Your task to perform on an android device: open sync settings in chrome Image 0: 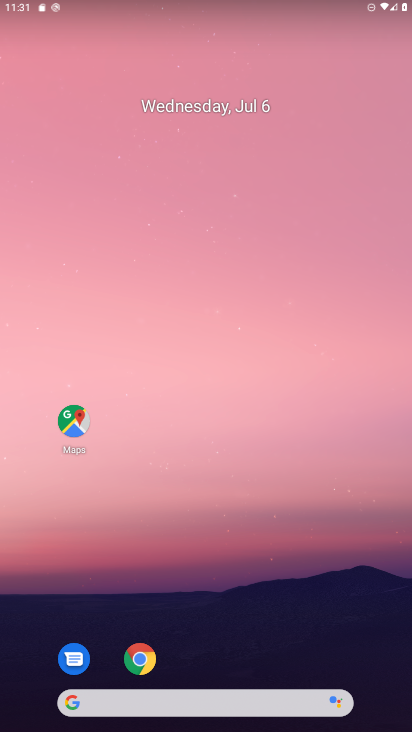
Step 0: drag from (157, 630) to (258, 99)
Your task to perform on an android device: open sync settings in chrome Image 1: 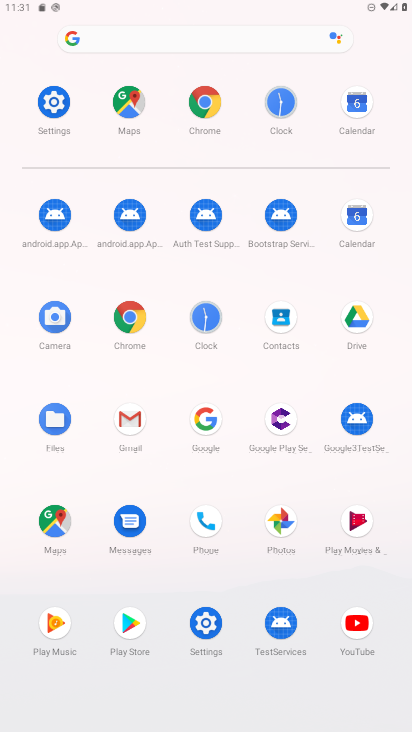
Step 1: click (213, 100)
Your task to perform on an android device: open sync settings in chrome Image 2: 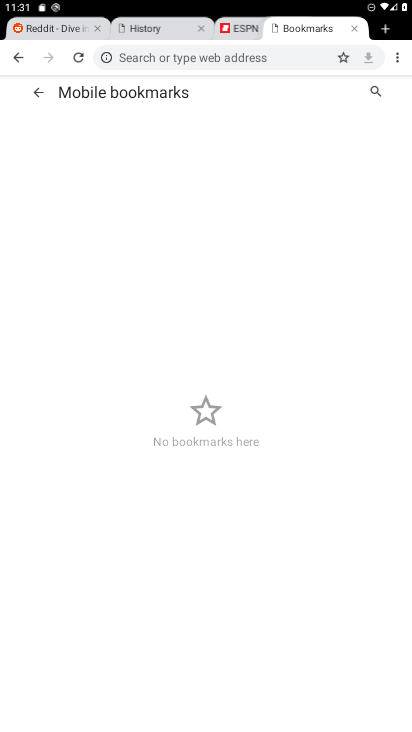
Step 2: drag from (399, 57) to (285, 264)
Your task to perform on an android device: open sync settings in chrome Image 3: 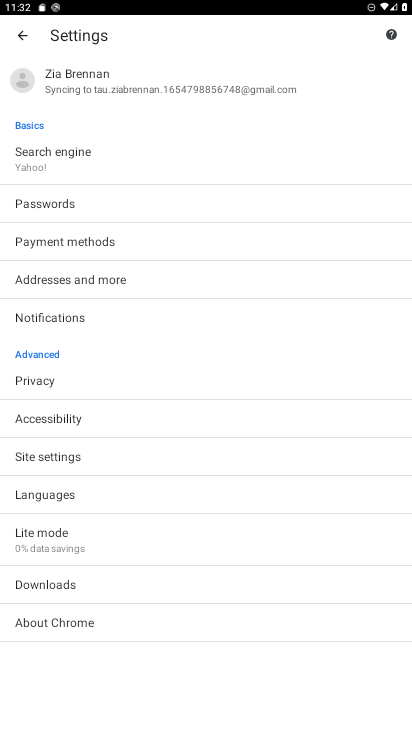
Step 3: click (62, 461)
Your task to perform on an android device: open sync settings in chrome Image 4: 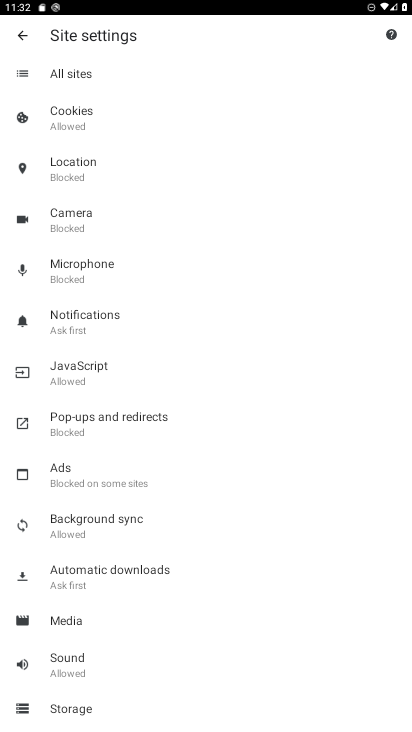
Step 4: click (110, 528)
Your task to perform on an android device: open sync settings in chrome Image 5: 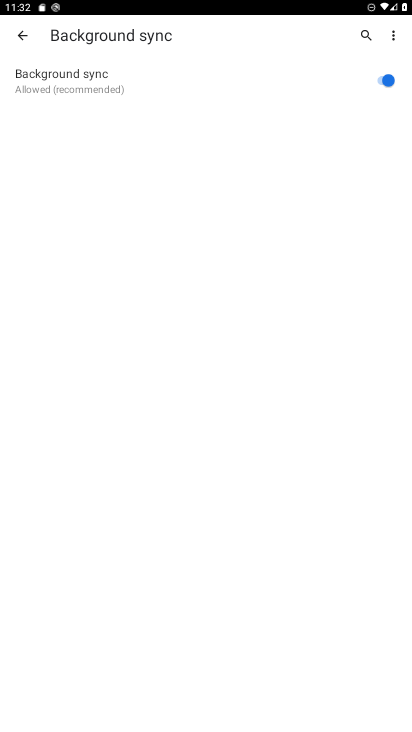
Step 5: task complete